Your task to perform on an android device: Open settings on Google Maps Image 0: 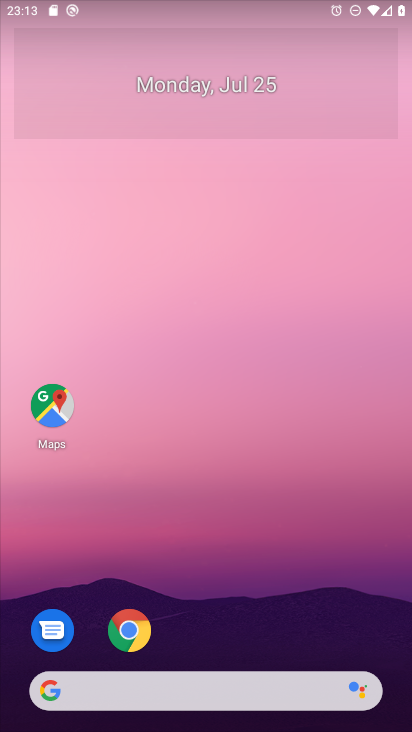
Step 0: click (53, 400)
Your task to perform on an android device: Open settings on Google Maps Image 1: 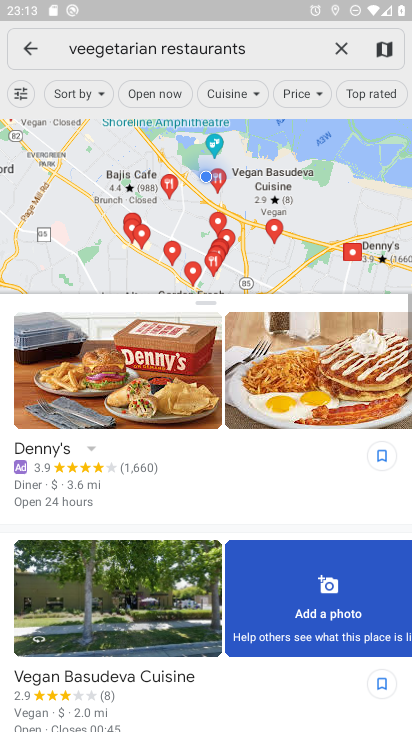
Step 1: click (27, 50)
Your task to perform on an android device: Open settings on Google Maps Image 2: 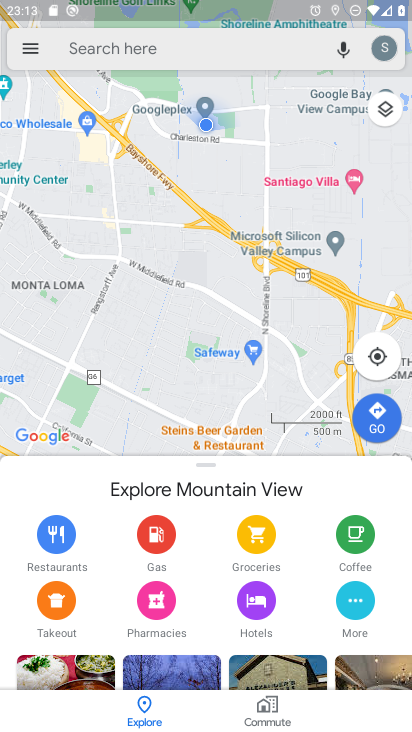
Step 2: click (27, 50)
Your task to perform on an android device: Open settings on Google Maps Image 3: 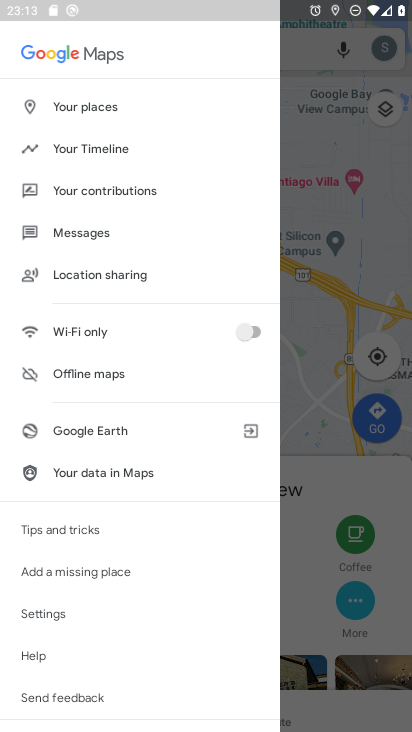
Step 3: click (59, 605)
Your task to perform on an android device: Open settings on Google Maps Image 4: 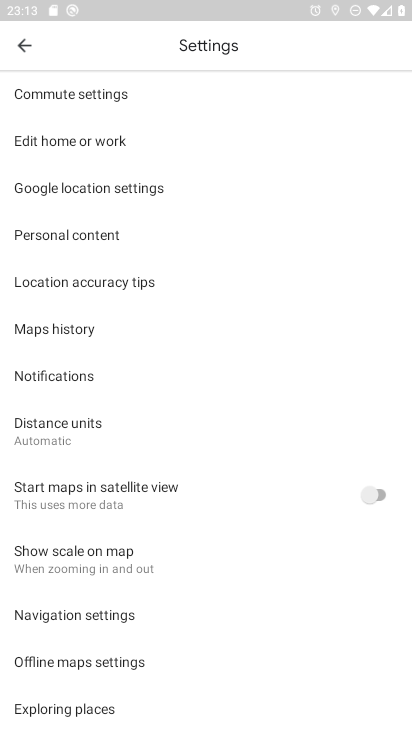
Step 4: task complete